Your task to perform on an android device: What's the weather? Image 0: 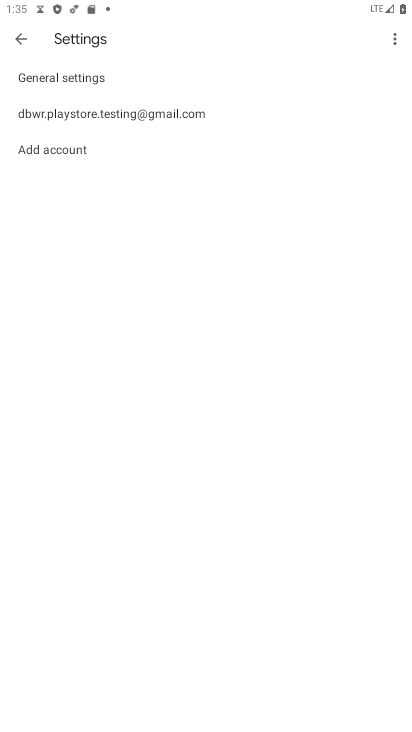
Step 0: press home button
Your task to perform on an android device: What's the weather? Image 1: 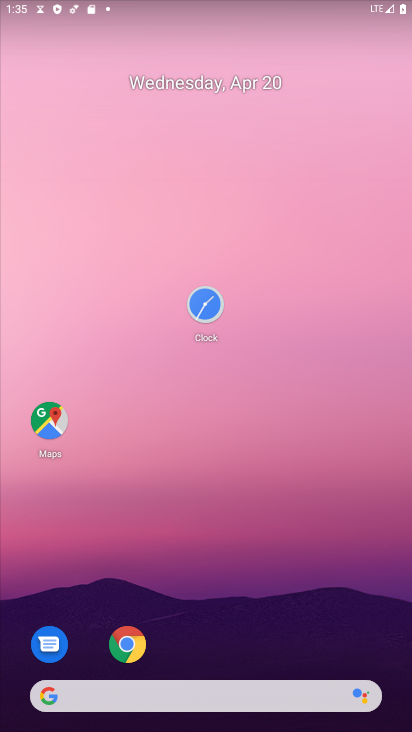
Step 1: drag from (261, 640) to (313, 33)
Your task to perform on an android device: What's the weather? Image 2: 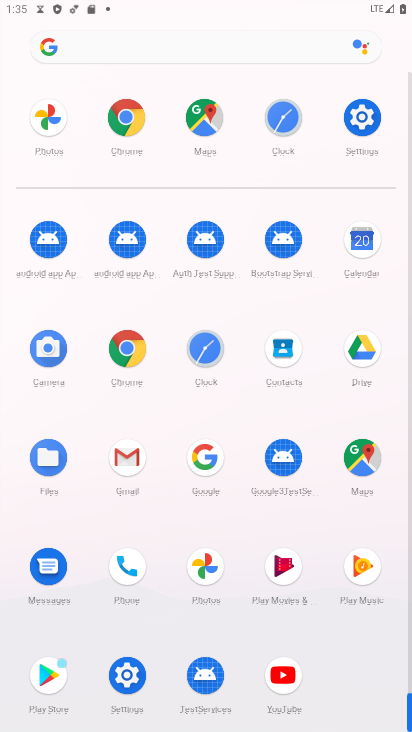
Step 2: click (126, 345)
Your task to perform on an android device: What's the weather? Image 3: 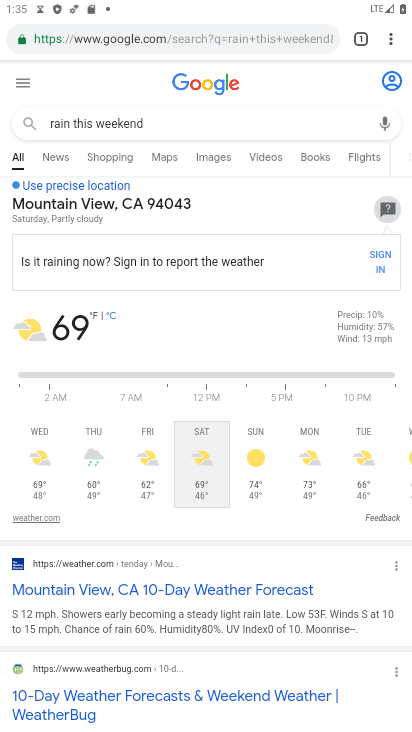
Step 3: click (177, 124)
Your task to perform on an android device: What's the weather? Image 4: 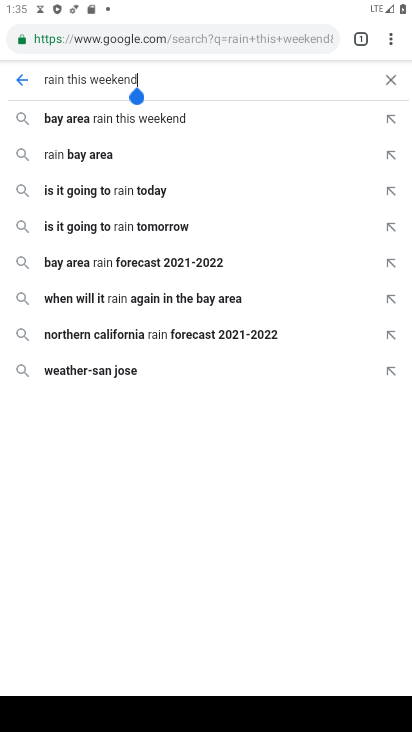
Step 4: click (182, 35)
Your task to perform on an android device: What's the weather? Image 5: 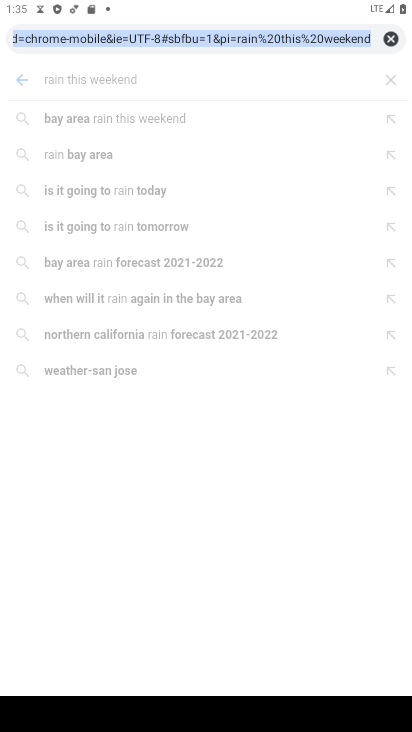
Step 5: click (389, 36)
Your task to perform on an android device: What's the weather? Image 6: 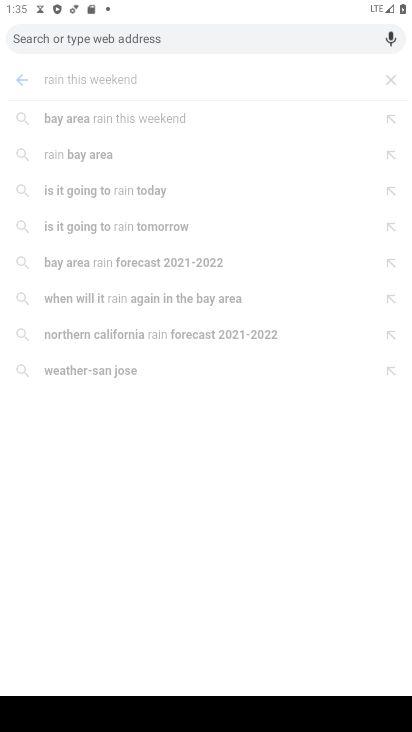
Step 6: type "weather"
Your task to perform on an android device: What's the weather? Image 7: 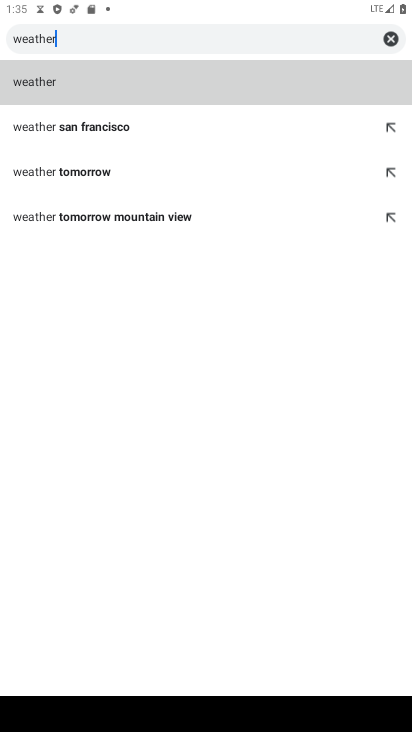
Step 7: click (107, 93)
Your task to perform on an android device: What's the weather? Image 8: 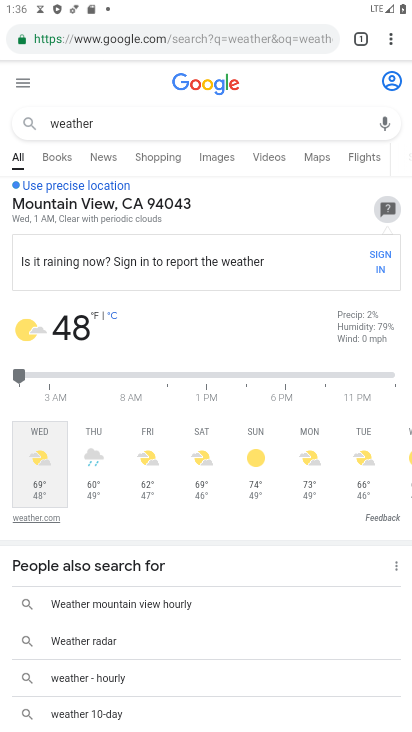
Step 8: task complete